Your task to perform on an android device: open app "Google Play Music" Image 0: 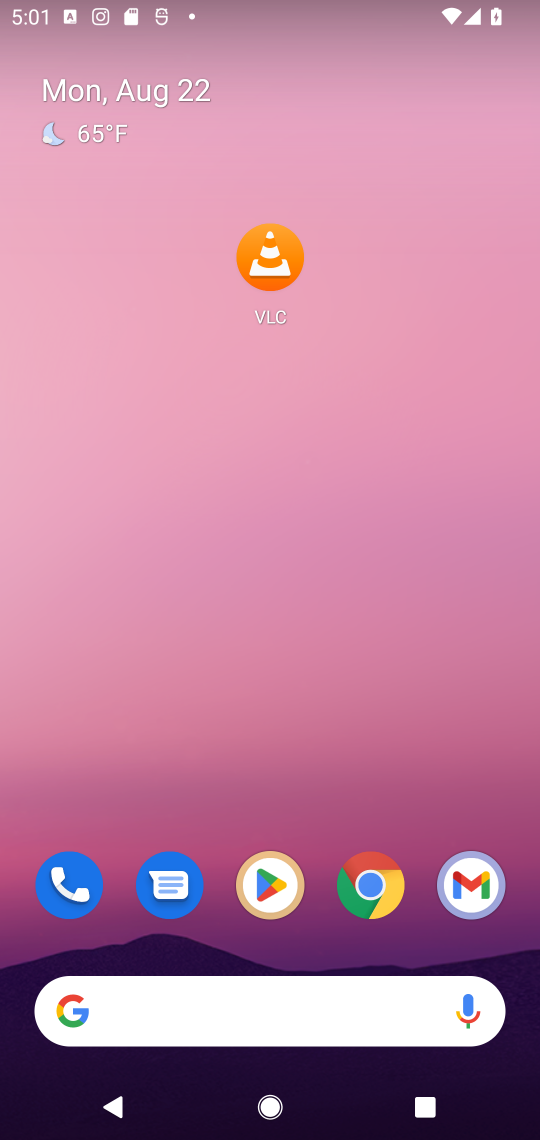
Step 0: click (260, 877)
Your task to perform on an android device: open app "Google Play Music" Image 1: 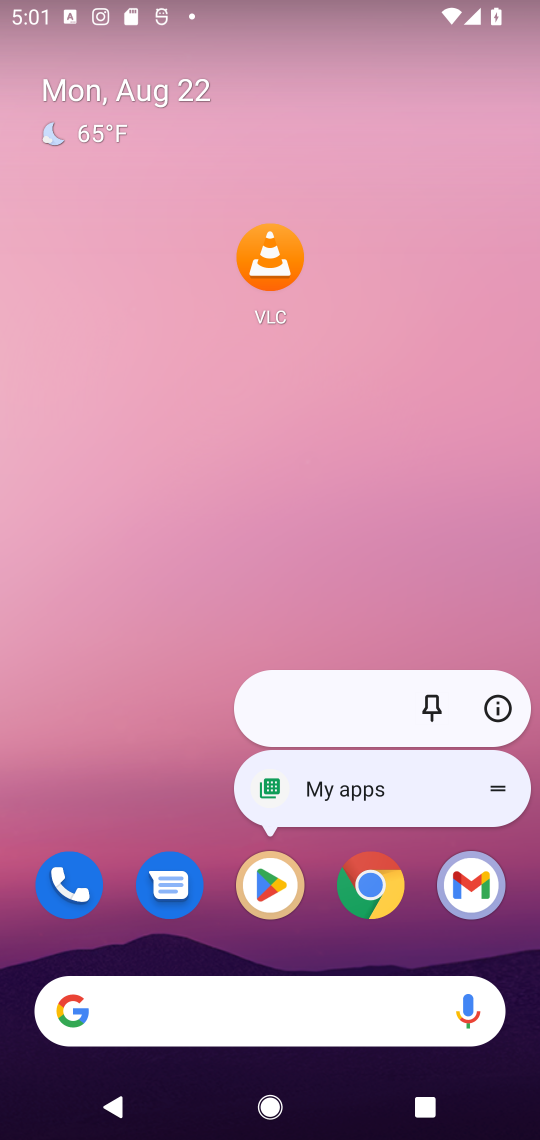
Step 1: click (260, 877)
Your task to perform on an android device: open app "Google Play Music" Image 2: 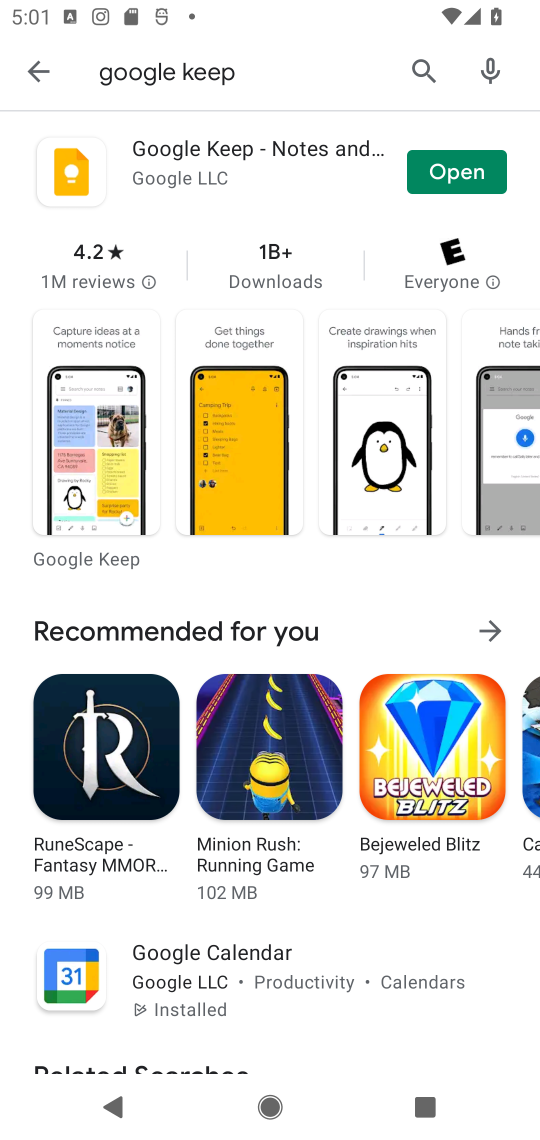
Step 2: click (419, 69)
Your task to perform on an android device: open app "Google Play Music" Image 3: 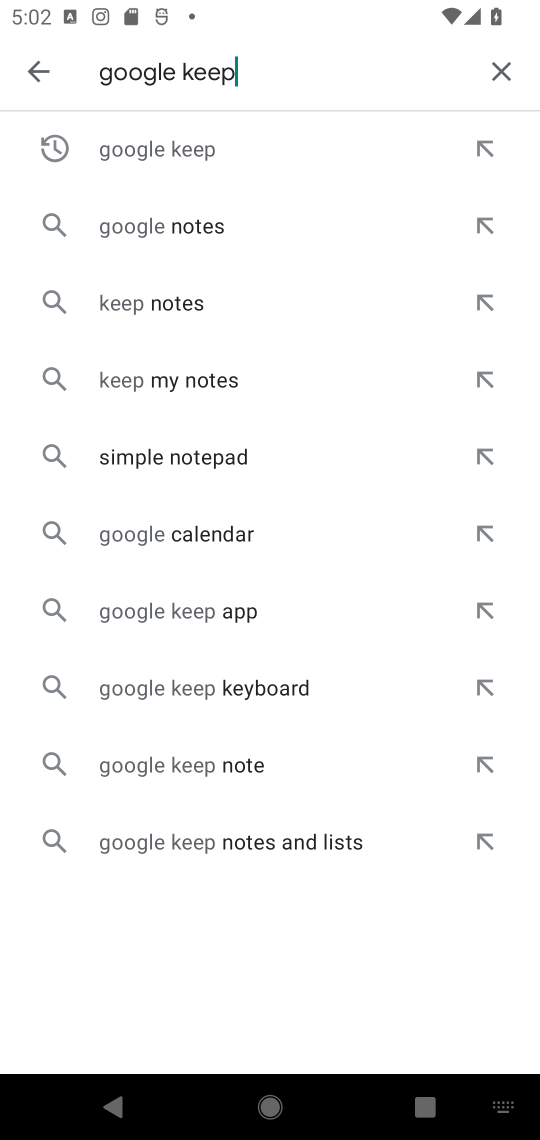
Step 3: click (491, 73)
Your task to perform on an android device: open app "Google Play Music" Image 4: 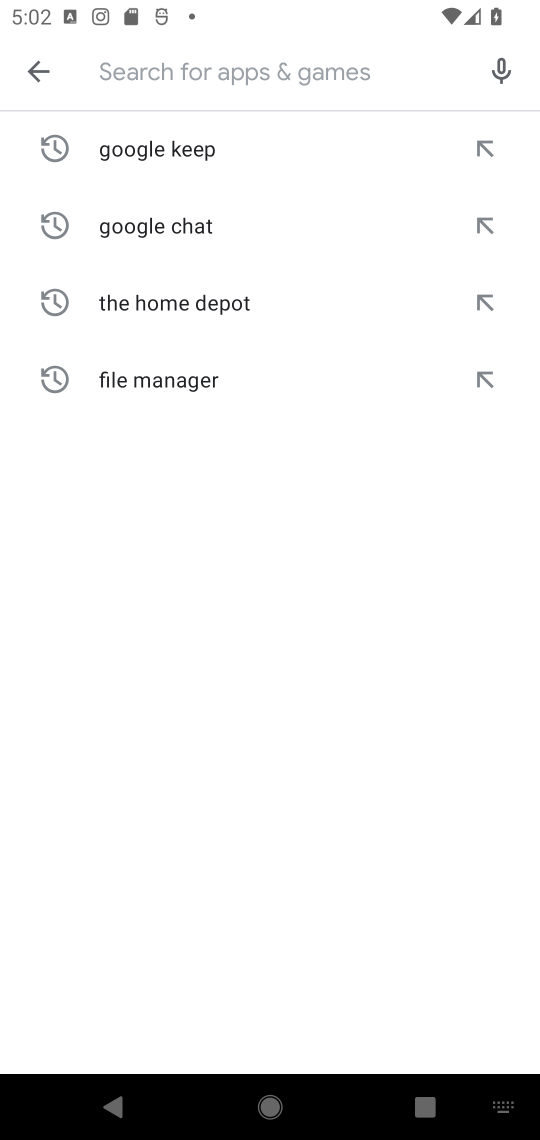
Step 4: type "Google Keep"
Your task to perform on an android device: open app "Google Play Music" Image 5: 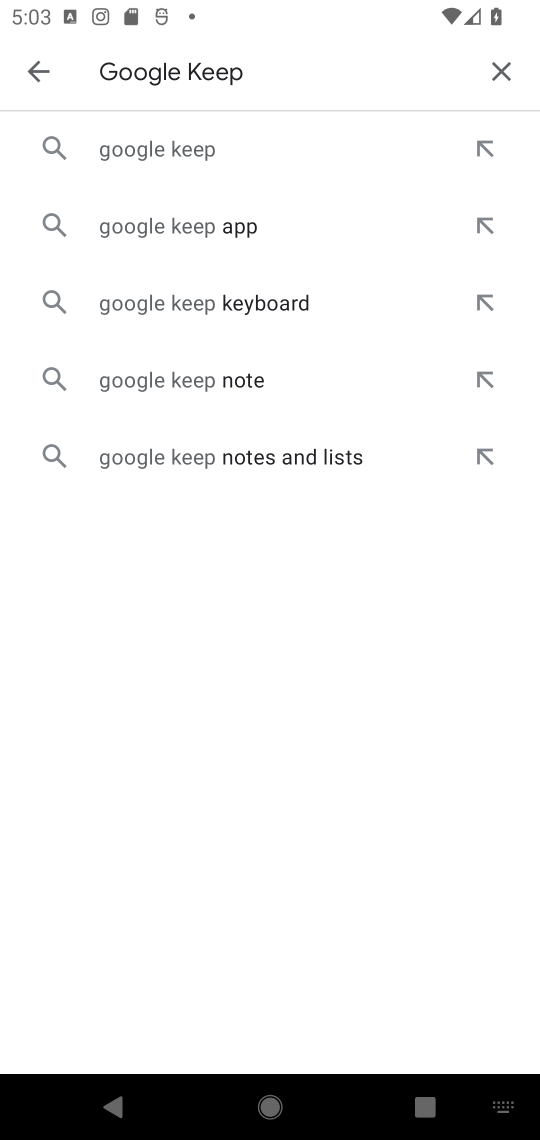
Step 5: click (502, 73)
Your task to perform on an android device: open app "Google Play Music" Image 6: 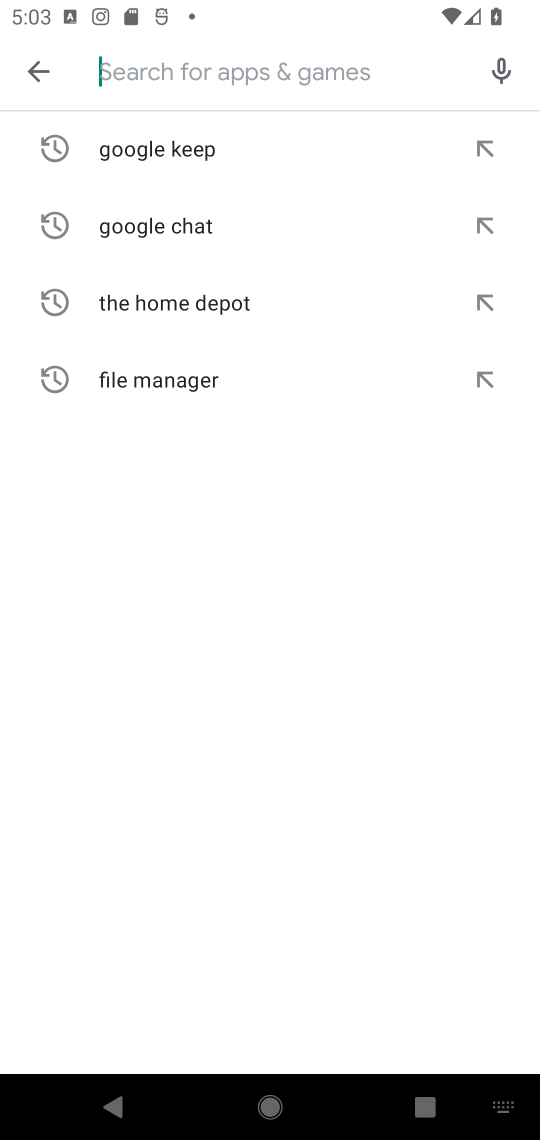
Step 6: type "Google Play Music"
Your task to perform on an android device: open app "Google Play Music" Image 7: 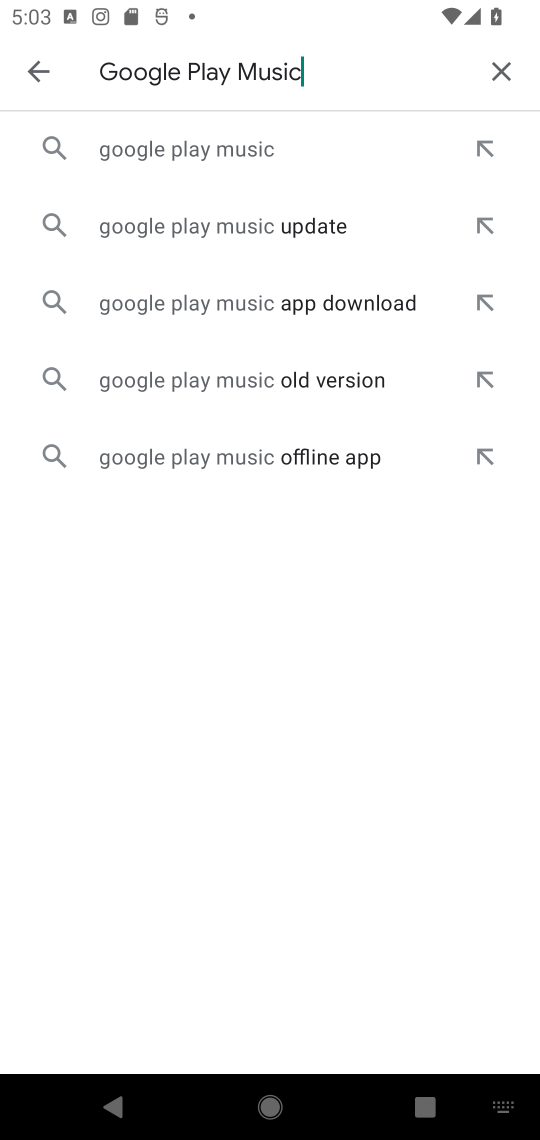
Step 7: click (159, 142)
Your task to perform on an android device: open app "Google Play Music" Image 8: 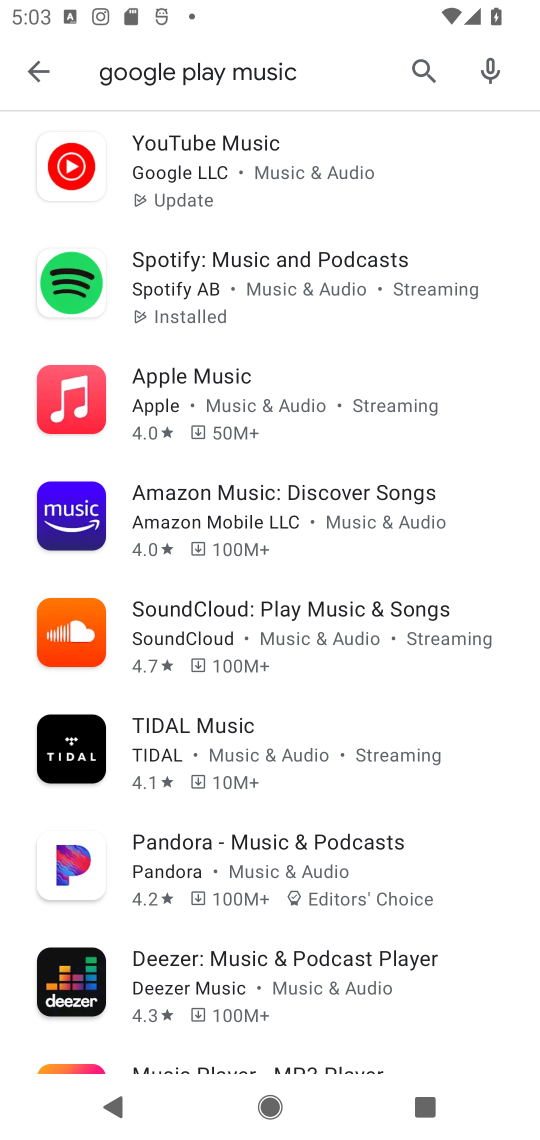
Step 8: task complete